Your task to perform on an android device: Set the phone to "Do not disturb". Image 0: 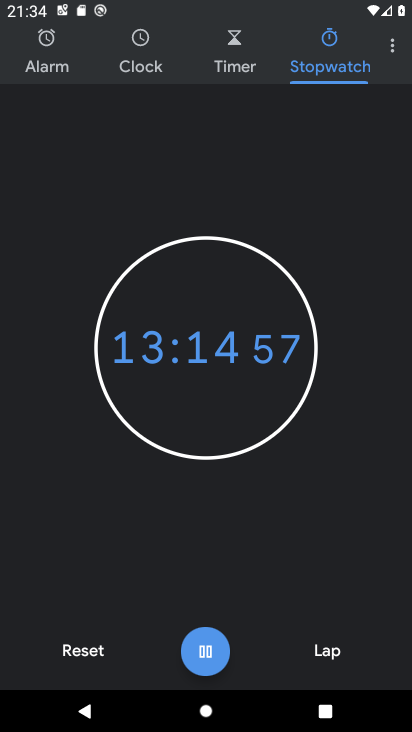
Step 0: press home button
Your task to perform on an android device: Set the phone to "Do not disturb". Image 1: 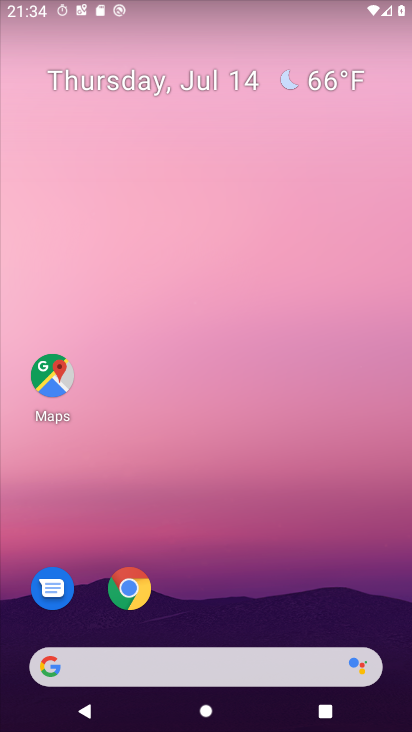
Step 1: drag from (350, 603) to (370, 54)
Your task to perform on an android device: Set the phone to "Do not disturb". Image 2: 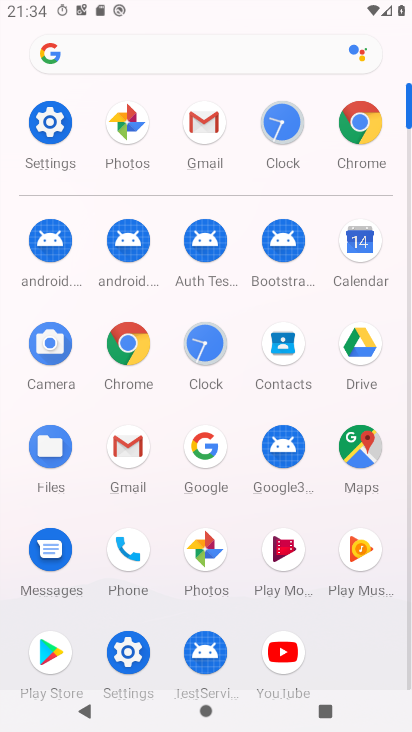
Step 2: click (54, 120)
Your task to perform on an android device: Set the phone to "Do not disturb". Image 3: 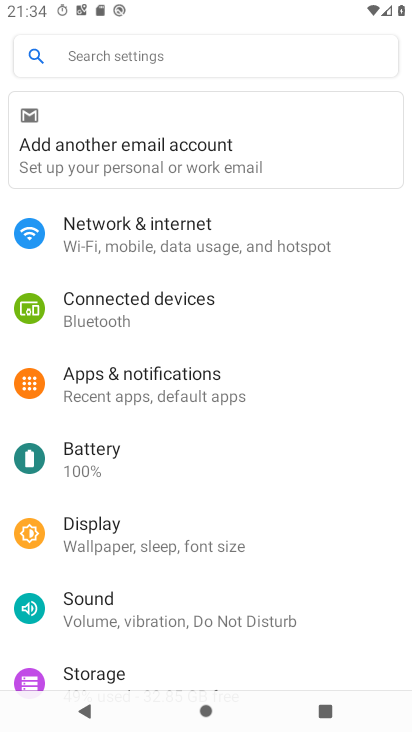
Step 3: drag from (375, 511) to (373, 411)
Your task to perform on an android device: Set the phone to "Do not disturb". Image 4: 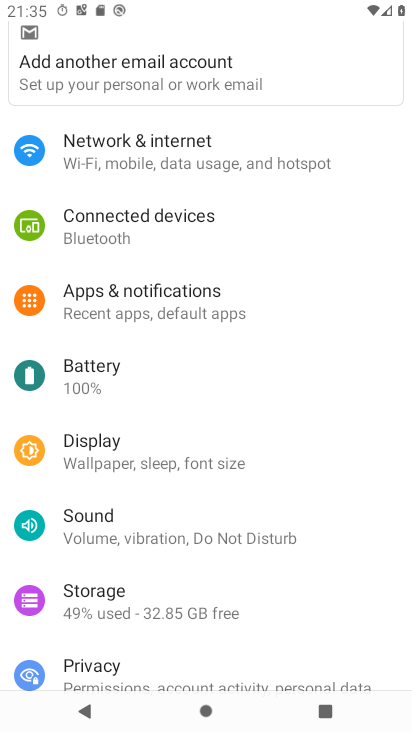
Step 4: drag from (370, 512) to (367, 354)
Your task to perform on an android device: Set the phone to "Do not disturb". Image 5: 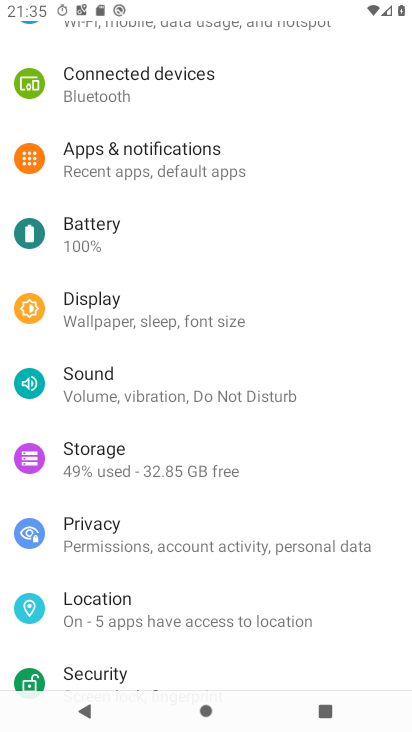
Step 5: drag from (369, 463) to (364, 369)
Your task to perform on an android device: Set the phone to "Do not disturb". Image 6: 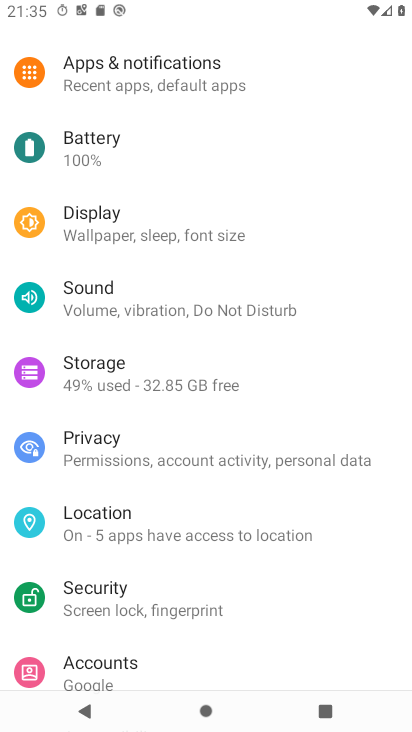
Step 6: drag from (364, 534) to (362, 399)
Your task to perform on an android device: Set the phone to "Do not disturb". Image 7: 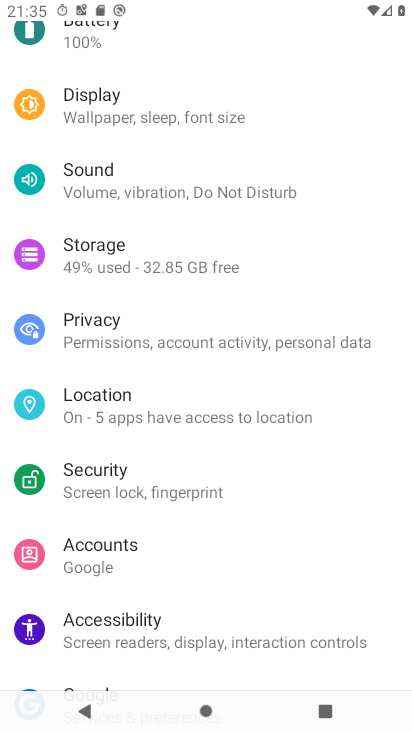
Step 7: drag from (356, 522) to (357, 409)
Your task to perform on an android device: Set the phone to "Do not disturb". Image 8: 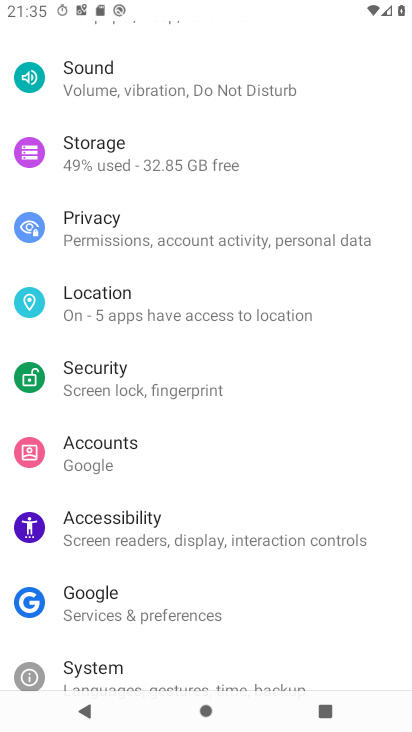
Step 8: drag from (367, 564) to (366, 472)
Your task to perform on an android device: Set the phone to "Do not disturb". Image 9: 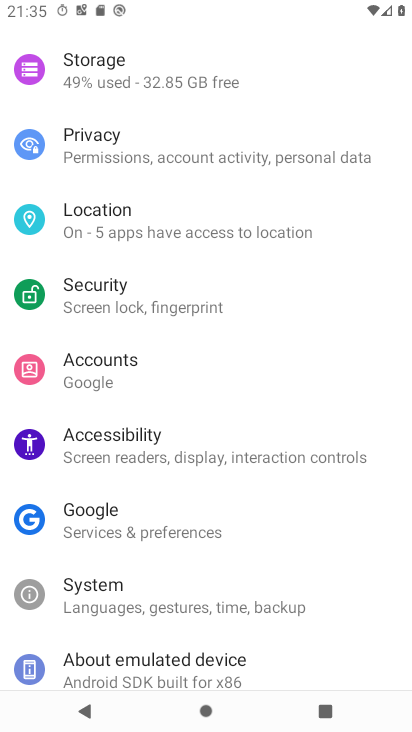
Step 9: drag from (367, 344) to (364, 428)
Your task to perform on an android device: Set the phone to "Do not disturb". Image 10: 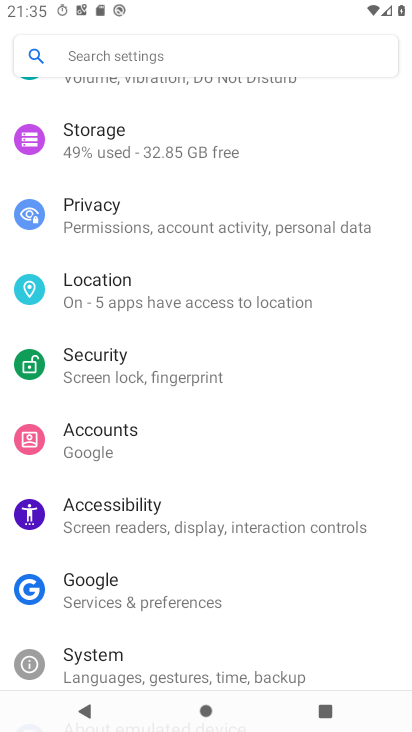
Step 10: drag from (365, 309) to (364, 383)
Your task to perform on an android device: Set the phone to "Do not disturb". Image 11: 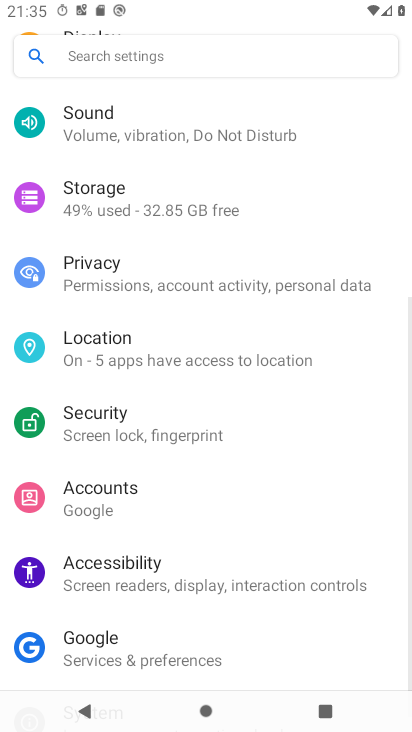
Step 11: drag from (363, 313) to (363, 395)
Your task to perform on an android device: Set the phone to "Do not disturb". Image 12: 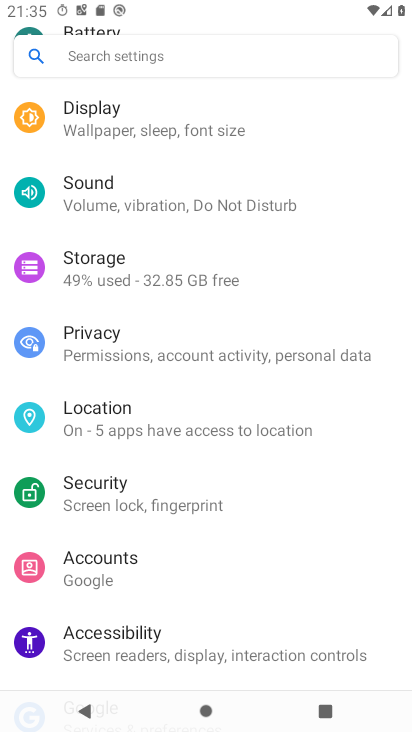
Step 12: drag from (362, 271) to (358, 368)
Your task to perform on an android device: Set the phone to "Do not disturb". Image 13: 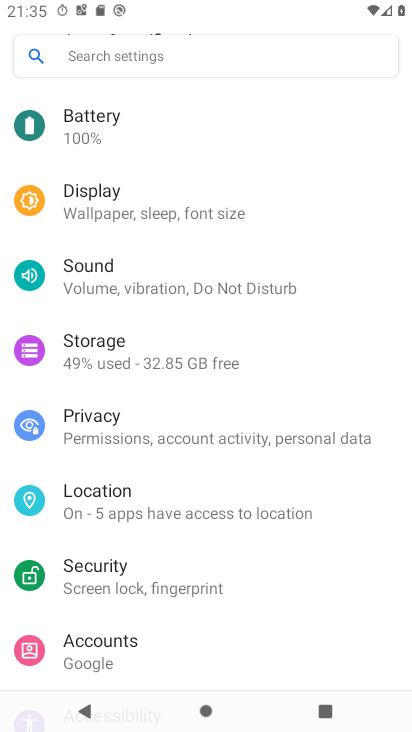
Step 13: drag from (354, 295) to (354, 385)
Your task to perform on an android device: Set the phone to "Do not disturb". Image 14: 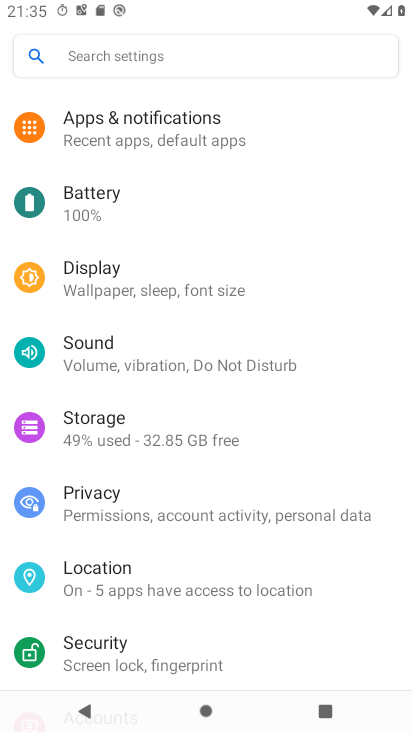
Step 14: drag from (354, 254) to (362, 536)
Your task to perform on an android device: Set the phone to "Do not disturb". Image 15: 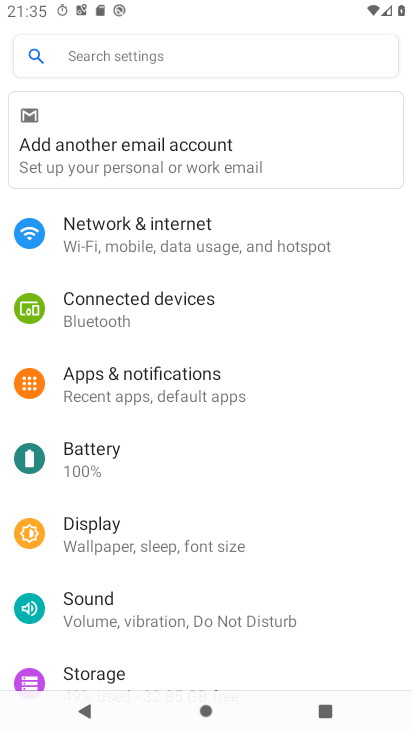
Step 15: click (280, 608)
Your task to perform on an android device: Set the phone to "Do not disturb". Image 16: 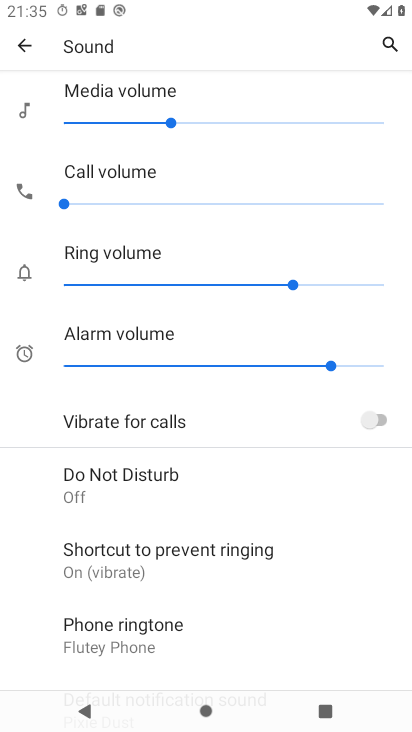
Step 16: click (117, 488)
Your task to perform on an android device: Set the phone to "Do not disturb". Image 17: 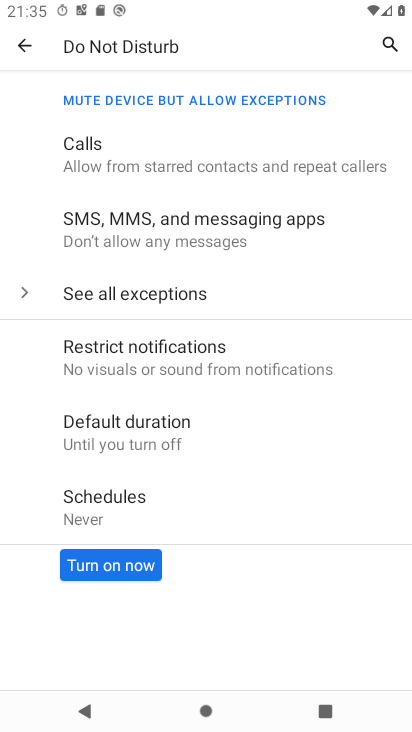
Step 17: click (138, 568)
Your task to perform on an android device: Set the phone to "Do not disturb". Image 18: 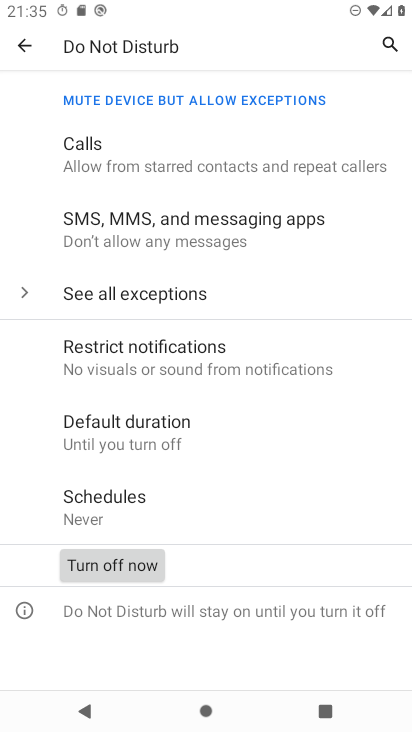
Step 18: task complete